Your task to perform on an android device: toggle translation in the chrome app Image 0: 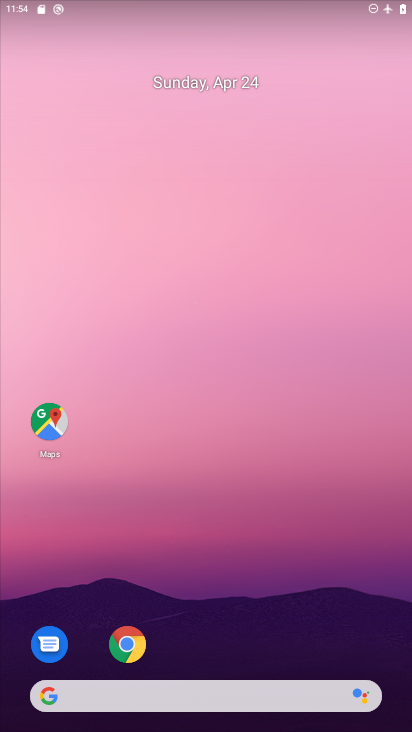
Step 0: click (133, 645)
Your task to perform on an android device: toggle translation in the chrome app Image 1: 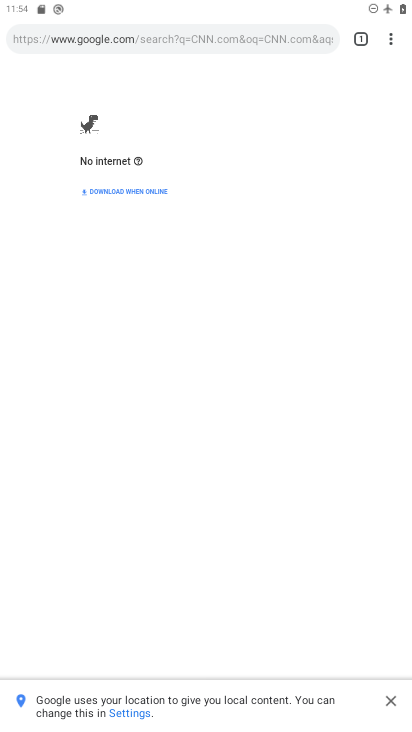
Step 1: click (393, 45)
Your task to perform on an android device: toggle translation in the chrome app Image 2: 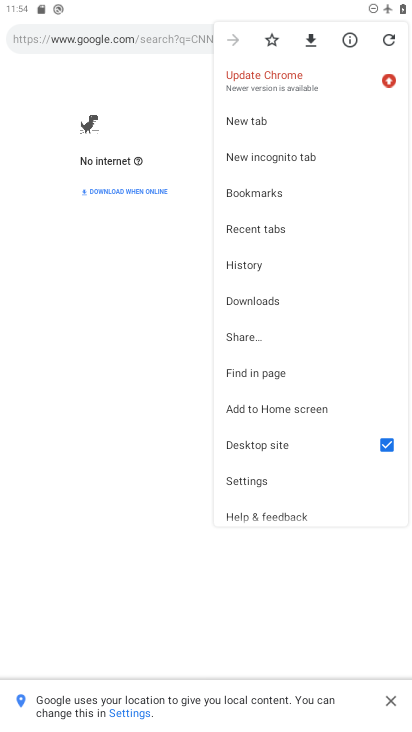
Step 2: click (259, 487)
Your task to perform on an android device: toggle translation in the chrome app Image 3: 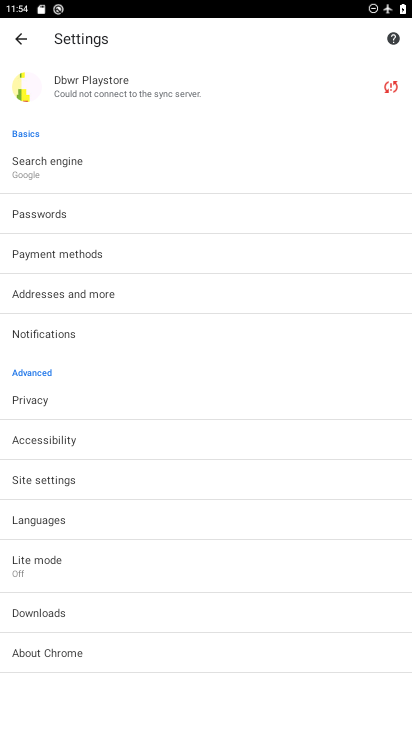
Step 3: click (69, 517)
Your task to perform on an android device: toggle translation in the chrome app Image 4: 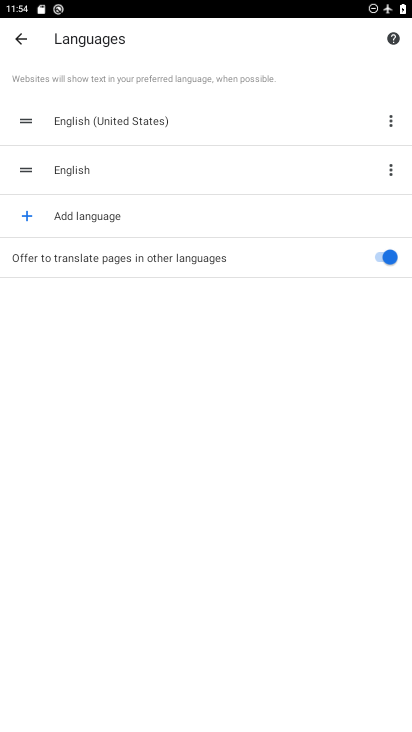
Step 4: click (222, 264)
Your task to perform on an android device: toggle translation in the chrome app Image 5: 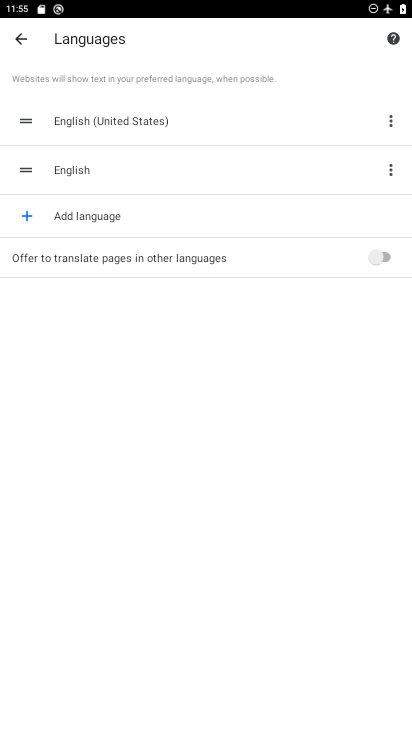
Step 5: task complete